Your task to perform on an android device: find which apps use the phone's location Image 0: 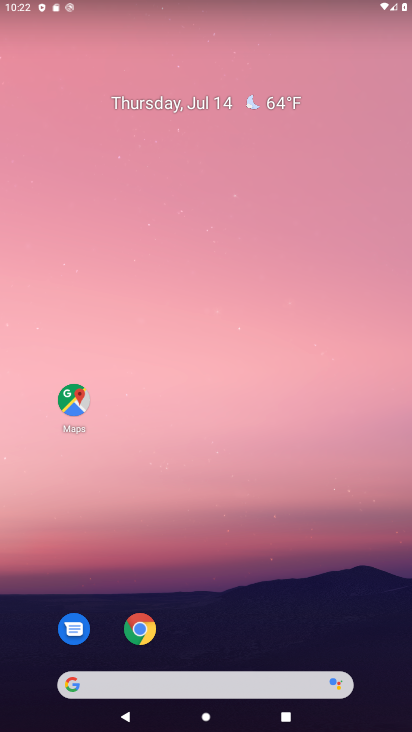
Step 0: drag from (234, 521) to (261, 295)
Your task to perform on an android device: find which apps use the phone's location Image 1: 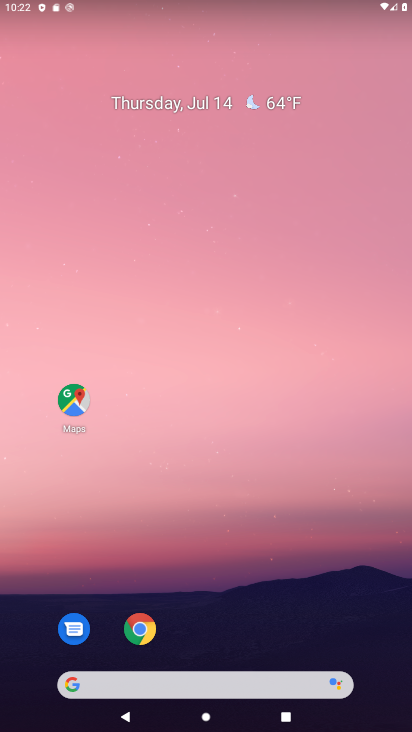
Step 1: drag from (244, 526) to (244, 166)
Your task to perform on an android device: find which apps use the phone's location Image 2: 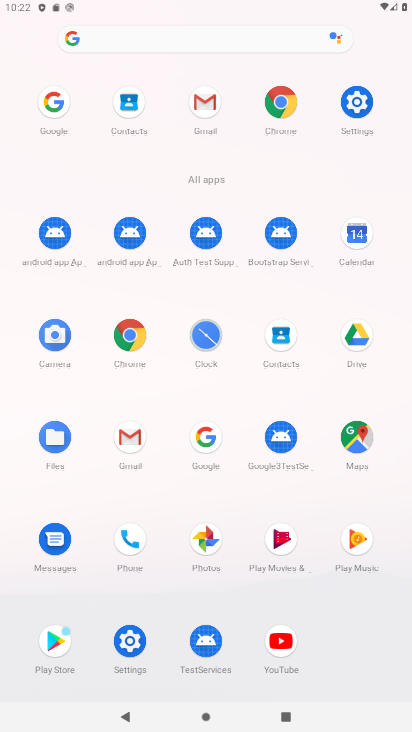
Step 2: click (363, 110)
Your task to perform on an android device: find which apps use the phone's location Image 3: 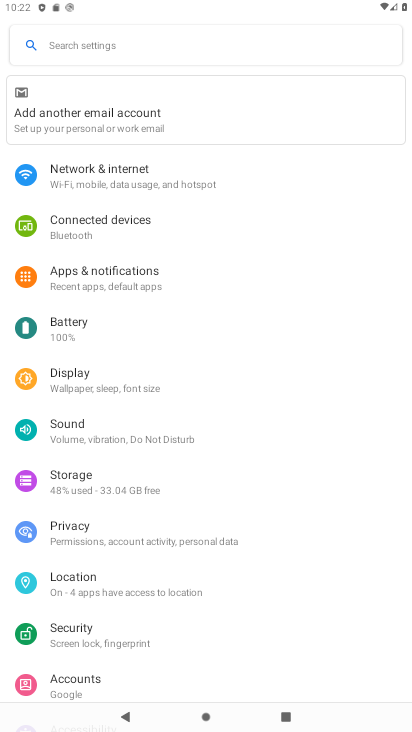
Step 3: click (93, 587)
Your task to perform on an android device: find which apps use the phone's location Image 4: 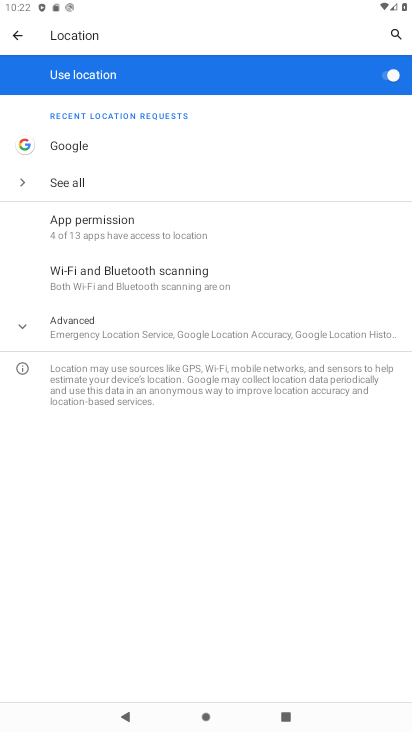
Step 4: click (91, 330)
Your task to perform on an android device: find which apps use the phone's location Image 5: 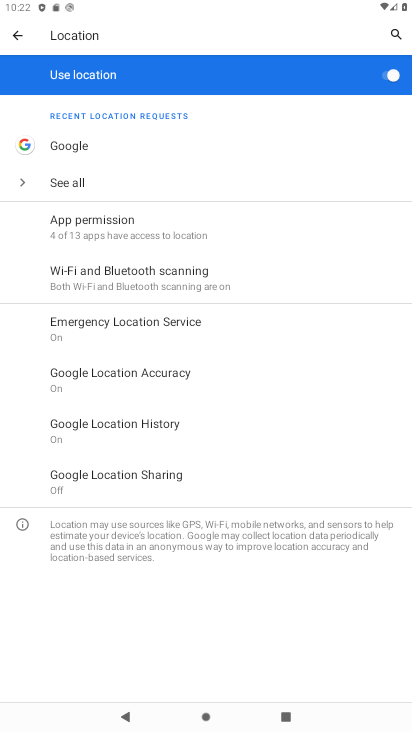
Step 5: click (99, 228)
Your task to perform on an android device: find which apps use the phone's location Image 6: 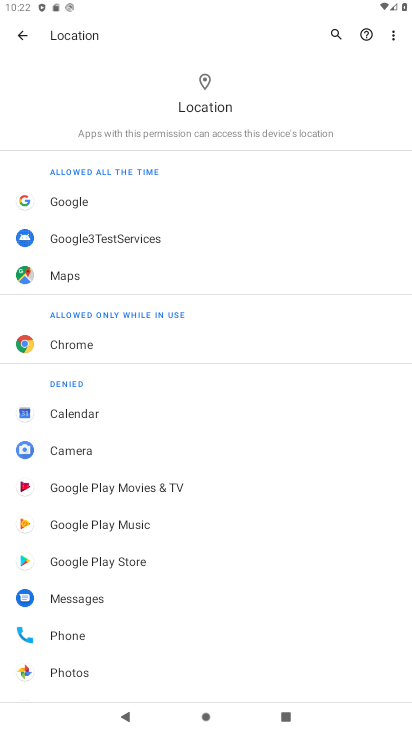
Step 6: task complete